Your task to perform on an android device: Open the Play Movies app and select the watchlist tab. Image 0: 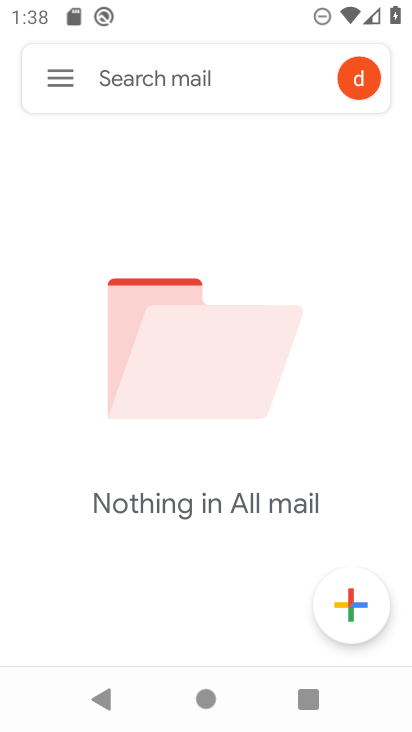
Step 0: press home button
Your task to perform on an android device: Open the Play Movies app and select the watchlist tab. Image 1: 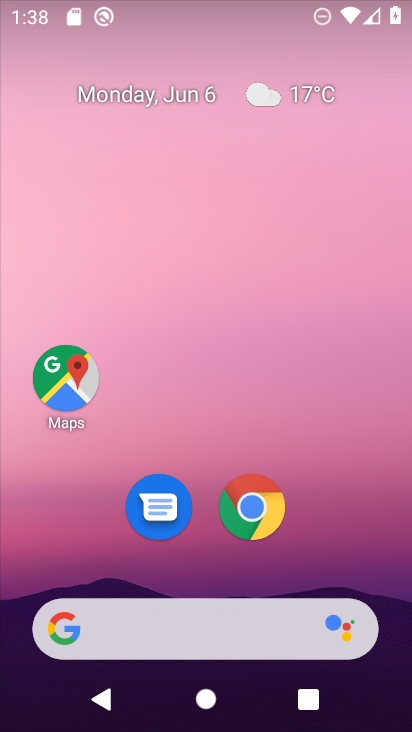
Step 1: drag from (266, 686) to (122, 68)
Your task to perform on an android device: Open the Play Movies app and select the watchlist tab. Image 2: 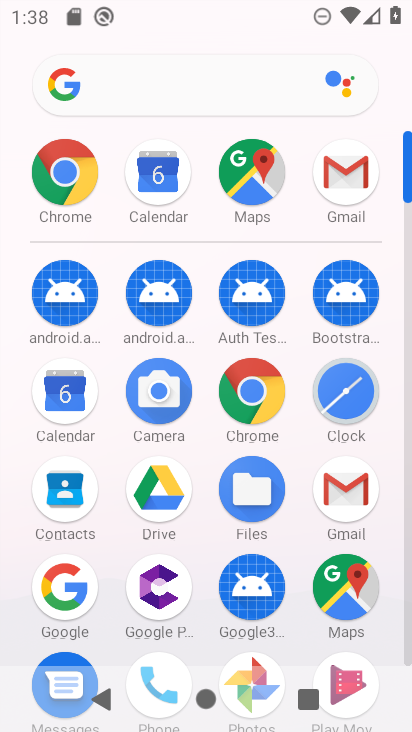
Step 2: click (363, 653)
Your task to perform on an android device: Open the Play Movies app and select the watchlist tab. Image 3: 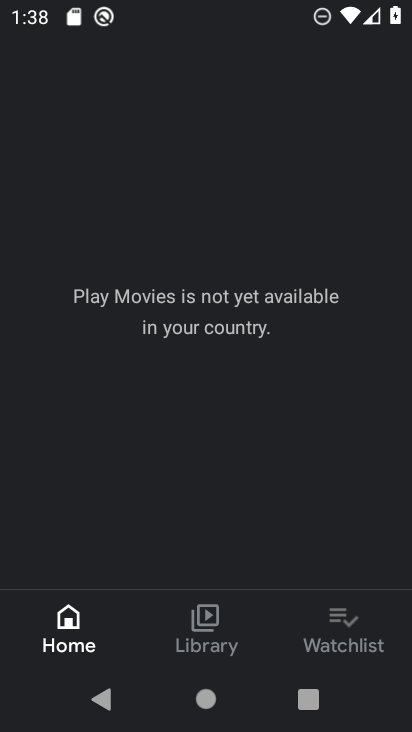
Step 3: click (343, 643)
Your task to perform on an android device: Open the Play Movies app and select the watchlist tab. Image 4: 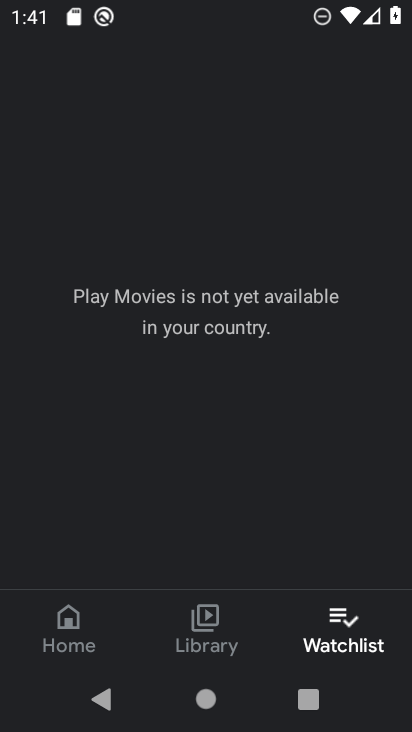
Step 4: task complete